Your task to perform on an android device: Go to CNN.com Image 0: 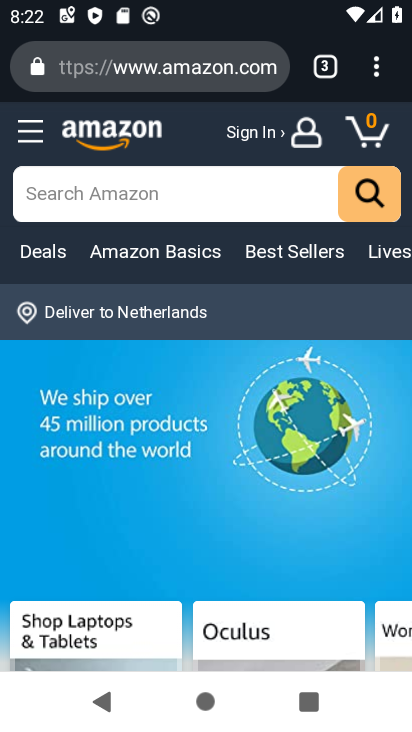
Step 0: press home button
Your task to perform on an android device: Go to CNN.com Image 1: 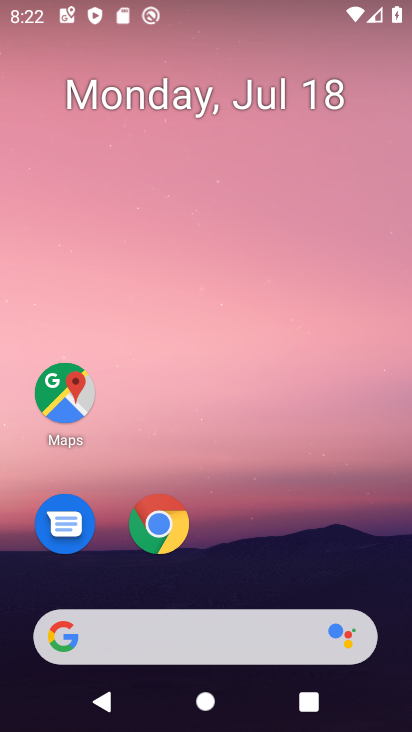
Step 1: click (225, 644)
Your task to perform on an android device: Go to CNN.com Image 2: 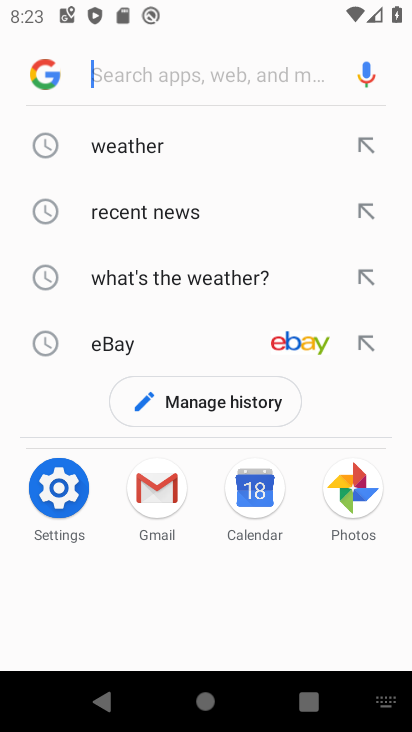
Step 2: type "cnn.com"
Your task to perform on an android device: Go to CNN.com Image 3: 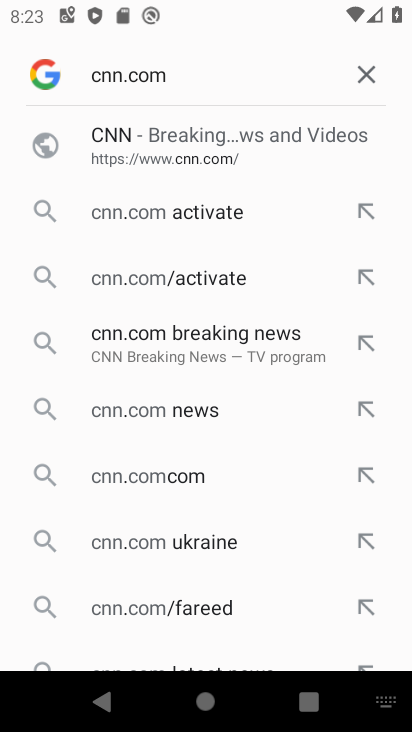
Step 3: click (153, 135)
Your task to perform on an android device: Go to CNN.com Image 4: 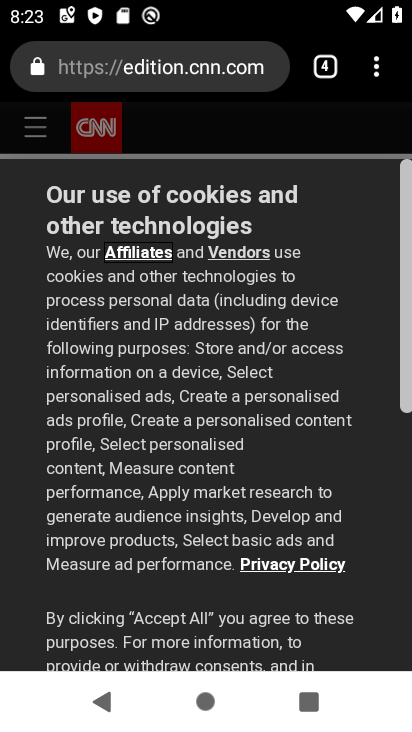
Step 4: drag from (193, 530) to (228, 189)
Your task to perform on an android device: Go to CNN.com Image 5: 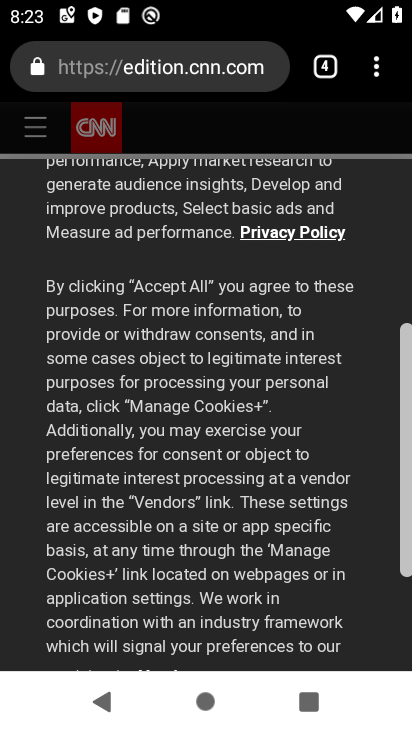
Step 5: drag from (235, 542) to (234, 168)
Your task to perform on an android device: Go to CNN.com Image 6: 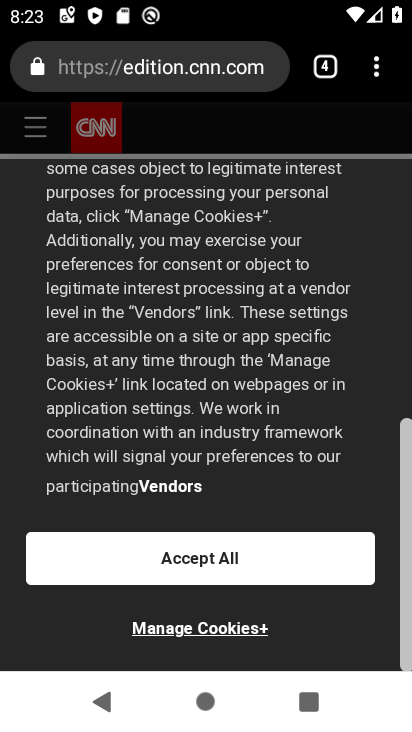
Step 6: click (252, 560)
Your task to perform on an android device: Go to CNN.com Image 7: 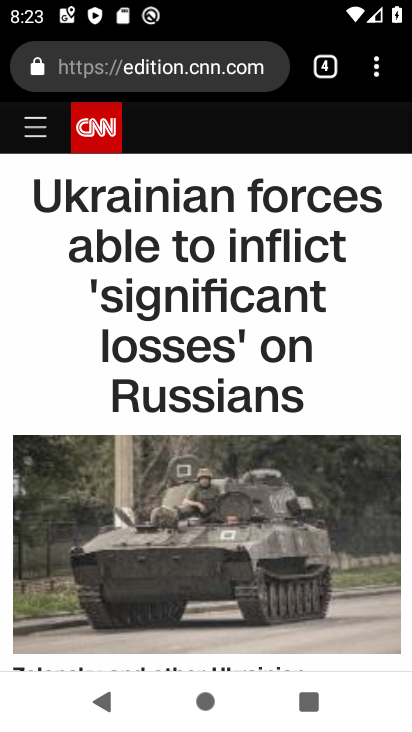
Step 7: task complete